Your task to perform on an android device: delete the emails in spam in the gmail app Image 0: 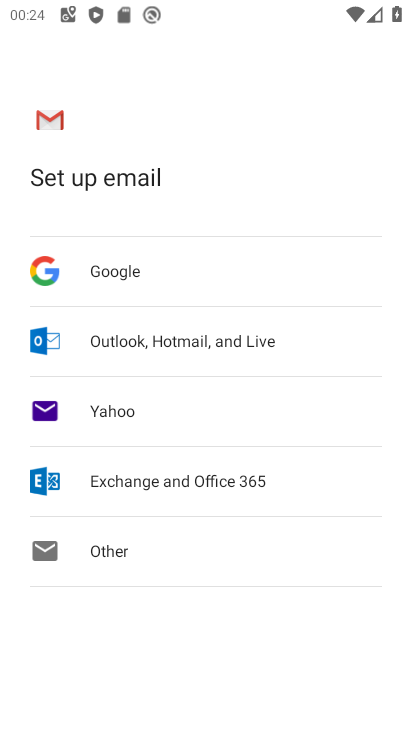
Step 0: press home button
Your task to perform on an android device: delete the emails in spam in the gmail app Image 1: 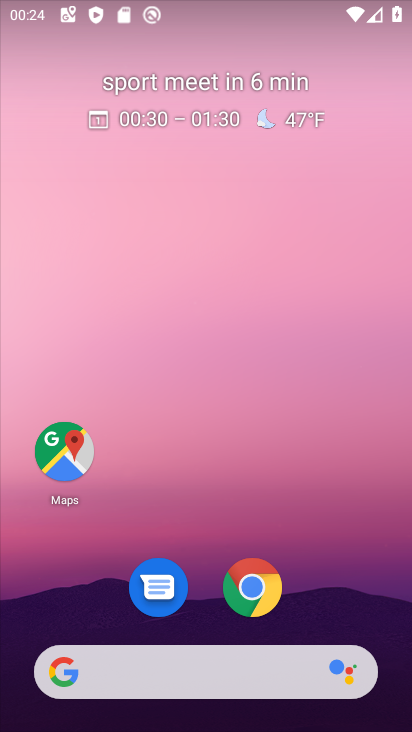
Step 1: drag from (391, 572) to (379, 199)
Your task to perform on an android device: delete the emails in spam in the gmail app Image 2: 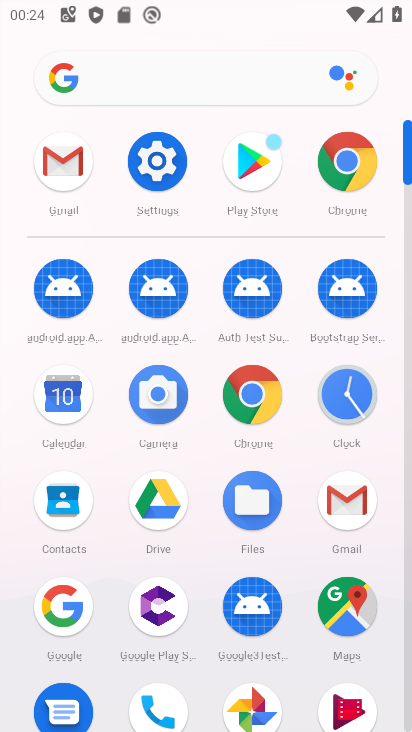
Step 2: click (353, 503)
Your task to perform on an android device: delete the emails in spam in the gmail app Image 3: 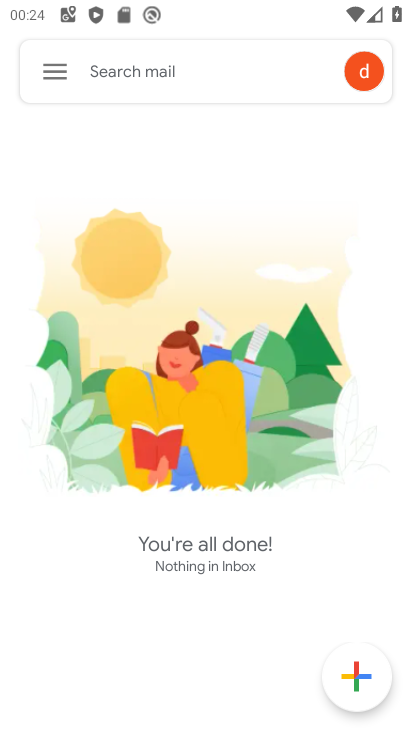
Step 3: click (53, 53)
Your task to perform on an android device: delete the emails in spam in the gmail app Image 4: 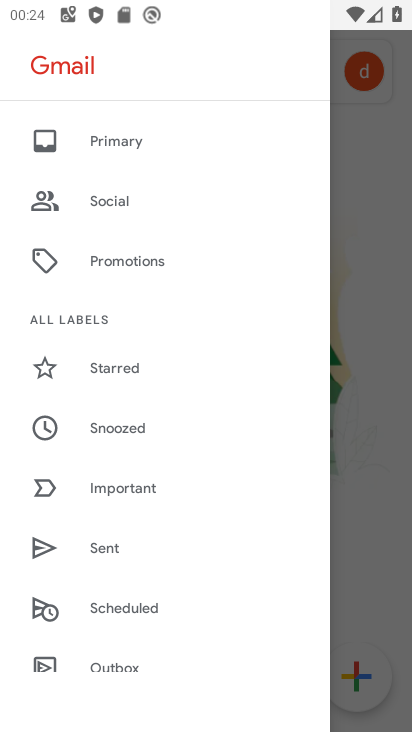
Step 4: drag from (239, 628) to (239, 337)
Your task to perform on an android device: delete the emails in spam in the gmail app Image 5: 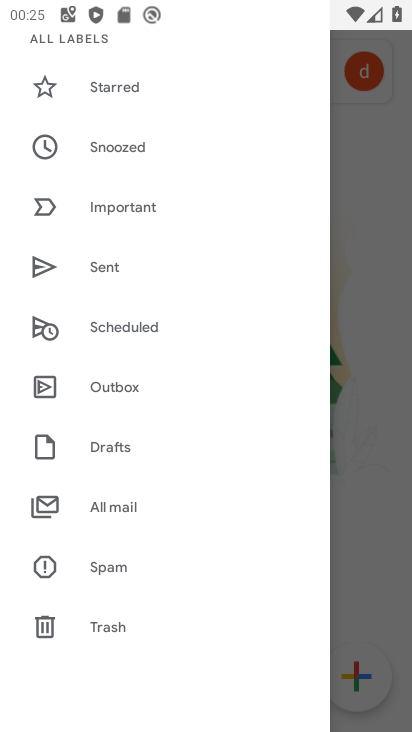
Step 5: click (108, 565)
Your task to perform on an android device: delete the emails in spam in the gmail app Image 6: 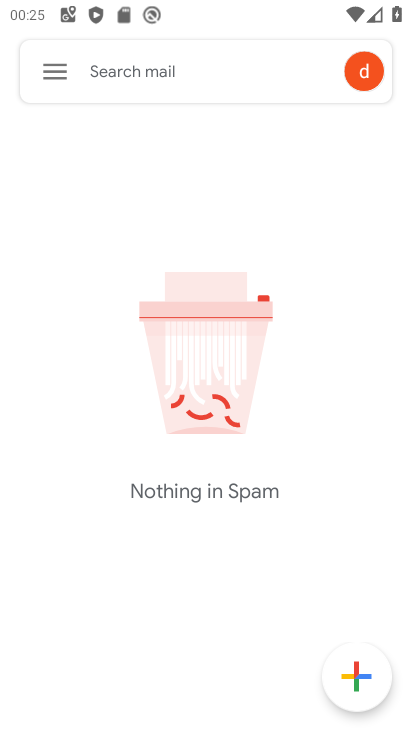
Step 6: task complete